Your task to perform on an android device: turn off location history Image 0: 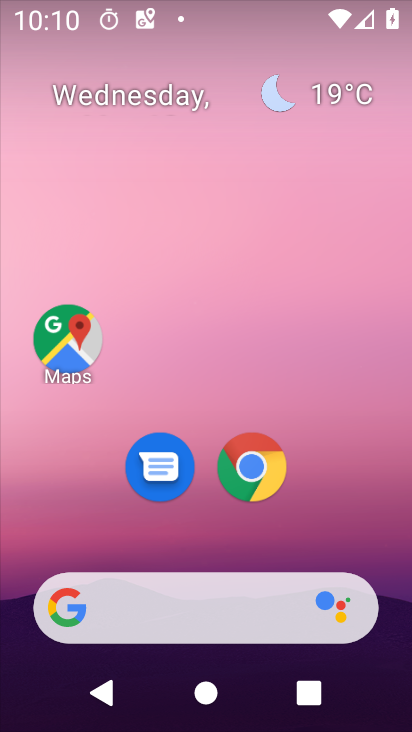
Step 0: drag from (327, 534) to (245, 21)
Your task to perform on an android device: turn off location history Image 1: 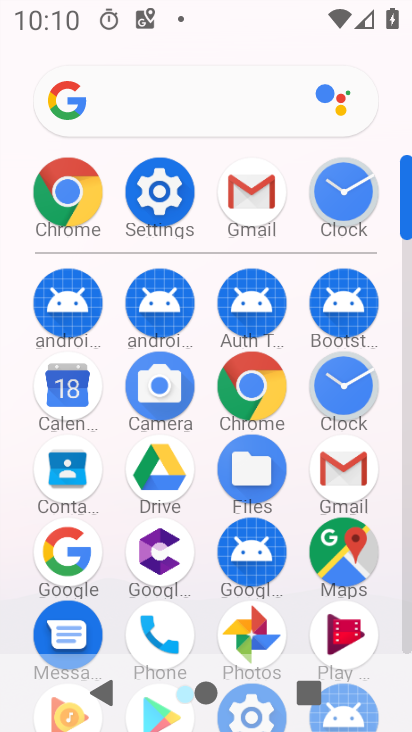
Step 1: click (165, 205)
Your task to perform on an android device: turn off location history Image 2: 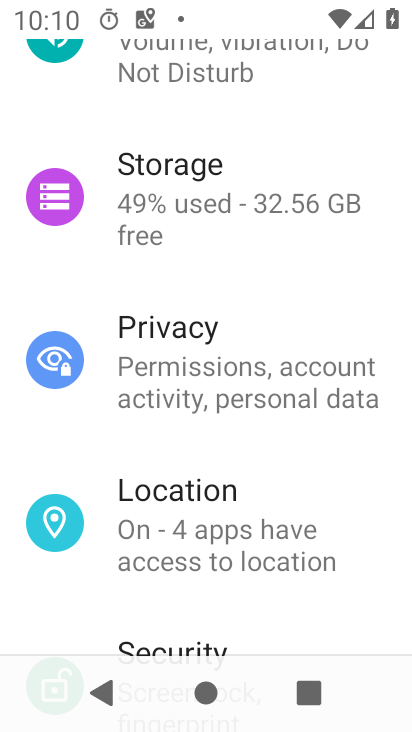
Step 2: drag from (281, 521) to (217, 137)
Your task to perform on an android device: turn off location history Image 3: 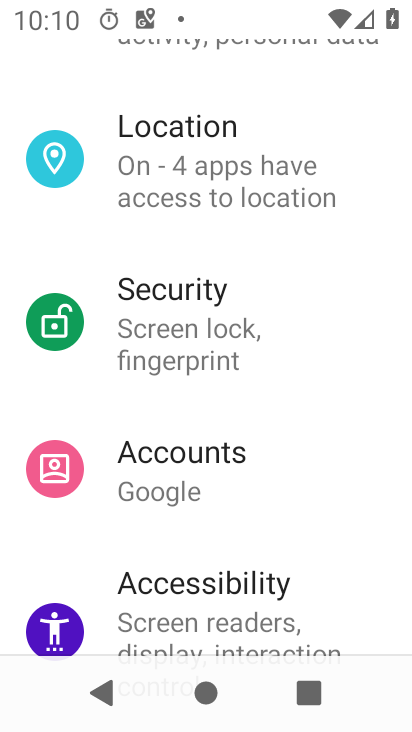
Step 3: click (235, 181)
Your task to perform on an android device: turn off location history Image 4: 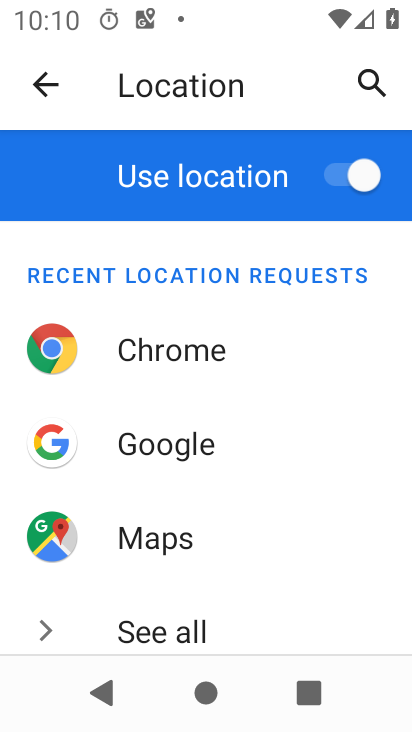
Step 4: drag from (308, 538) to (243, 176)
Your task to perform on an android device: turn off location history Image 5: 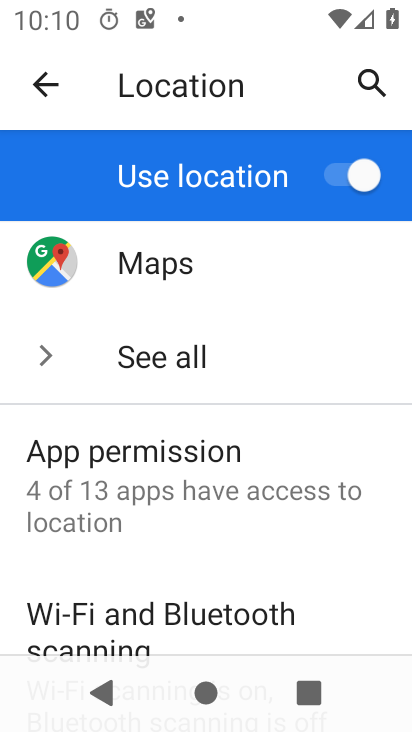
Step 5: drag from (282, 581) to (234, 234)
Your task to perform on an android device: turn off location history Image 6: 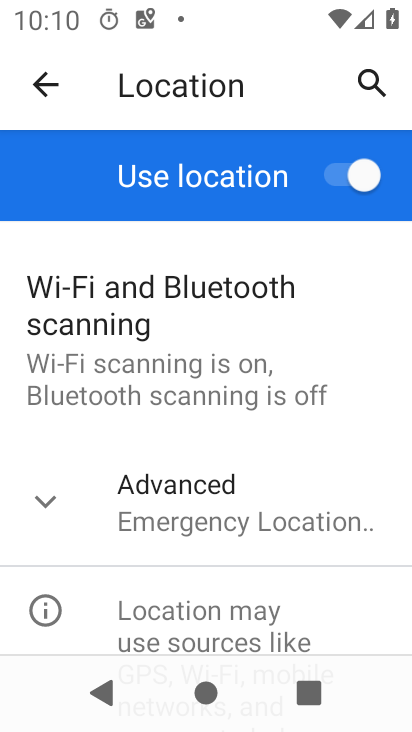
Step 6: click (241, 495)
Your task to perform on an android device: turn off location history Image 7: 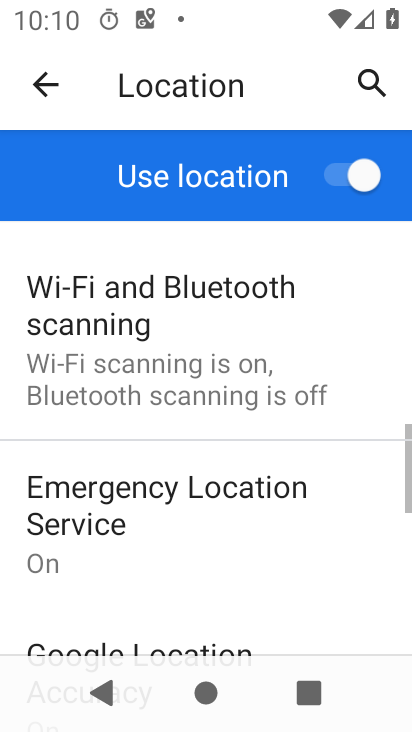
Step 7: drag from (222, 587) to (200, 208)
Your task to perform on an android device: turn off location history Image 8: 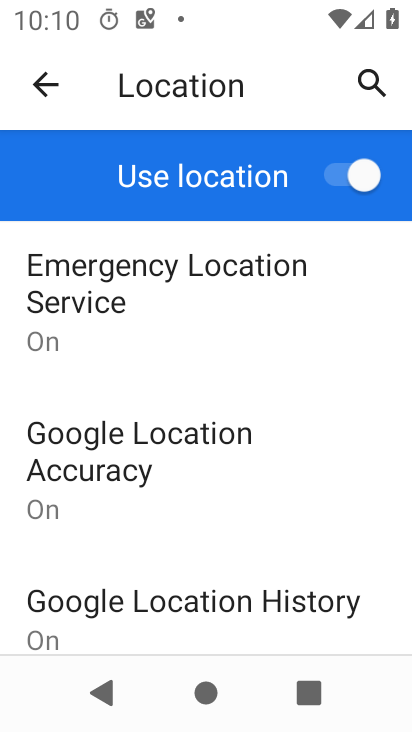
Step 8: click (270, 604)
Your task to perform on an android device: turn off location history Image 9: 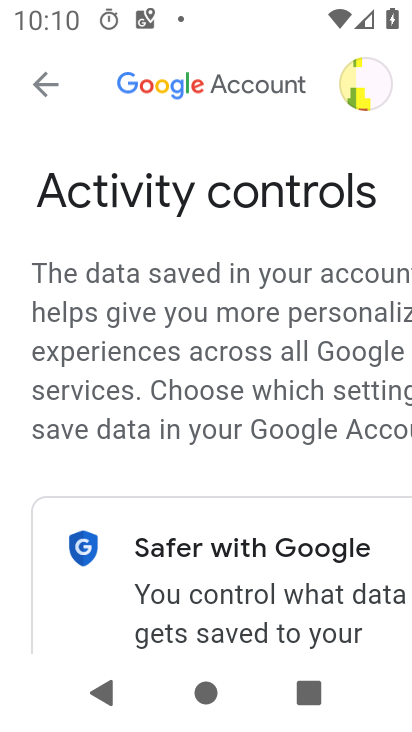
Step 9: drag from (258, 598) to (175, 185)
Your task to perform on an android device: turn off location history Image 10: 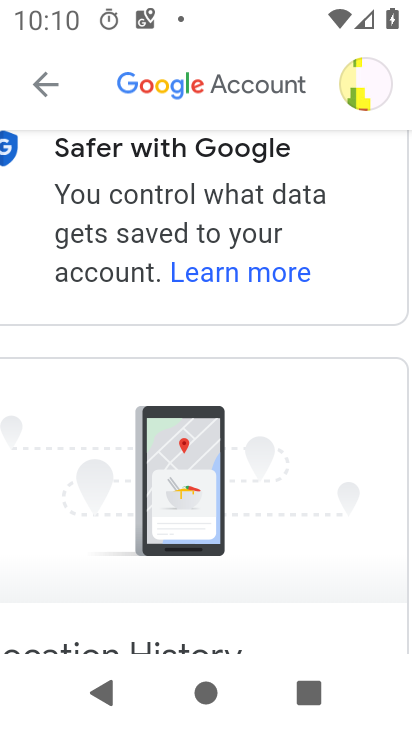
Step 10: drag from (251, 546) to (244, 187)
Your task to perform on an android device: turn off location history Image 11: 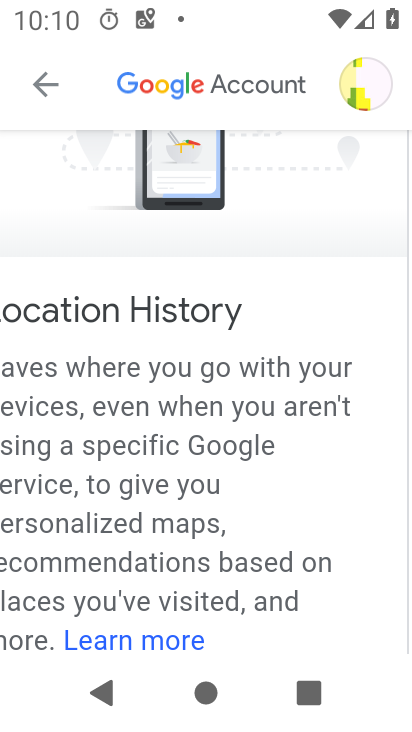
Step 11: drag from (272, 590) to (259, 224)
Your task to perform on an android device: turn off location history Image 12: 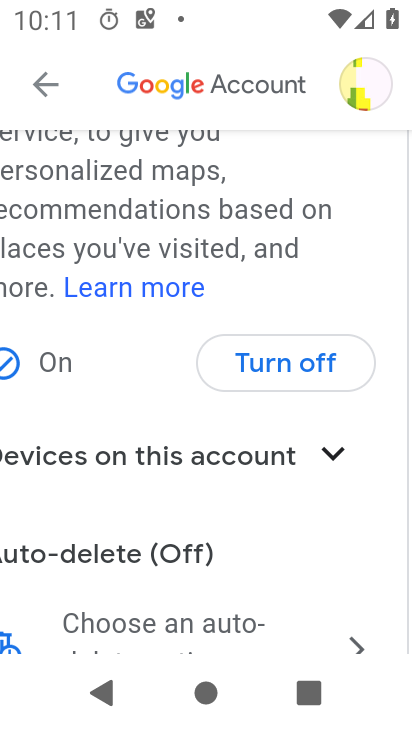
Step 12: click (304, 365)
Your task to perform on an android device: turn off location history Image 13: 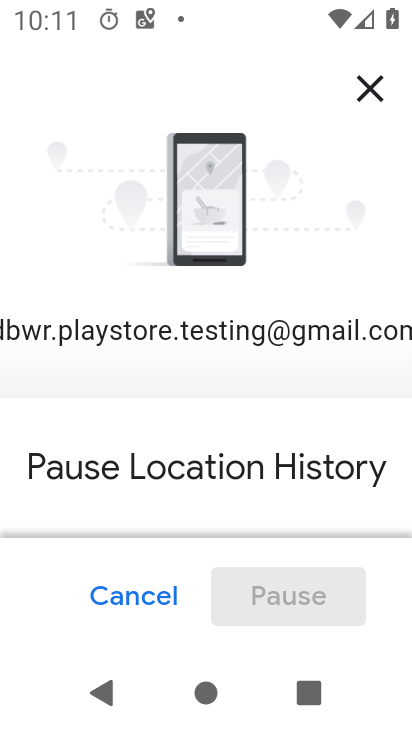
Step 13: drag from (291, 494) to (220, 15)
Your task to perform on an android device: turn off location history Image 14: 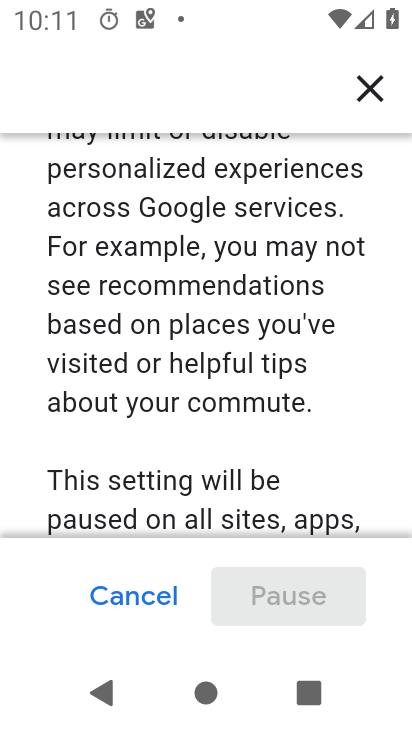
Step 14: drag from (227, 450) to (228, 49)
Your task to perform on an android device: turn off location history Image 15: 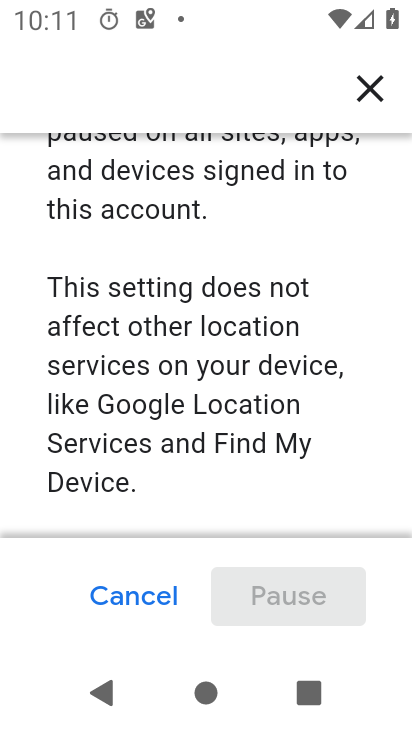
Step 15: drag from (198, 406) to (200, 101)
Your task to perform on an android device: turn off location history Image 16: 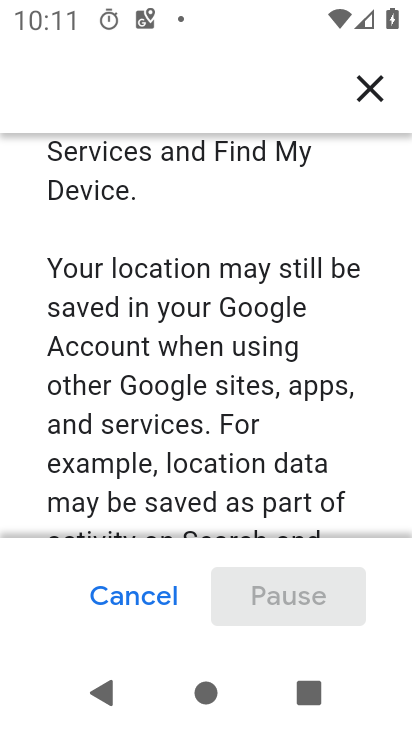
Step 16: drag from (208, 459) to (227, 96)
Your task to perform on an android device: turn off location history Image 17: 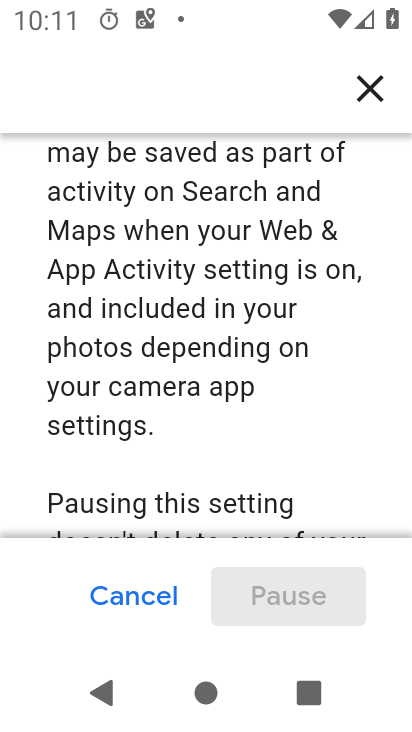
Step 17: drag from (208, 432) to (223, 133)
Your task to perform on an android device: turn off location history Image 18: 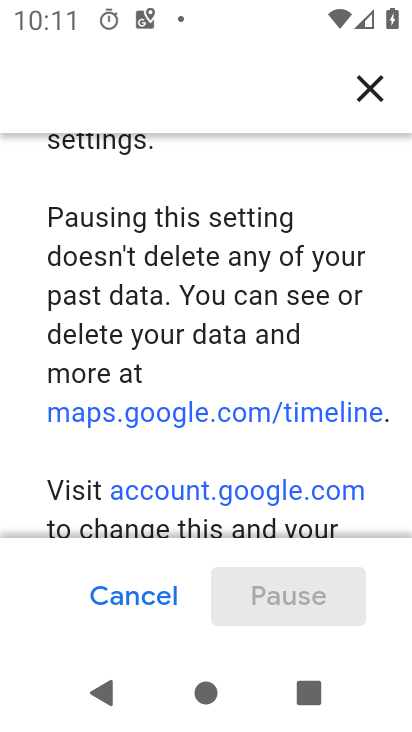
Step 18: drag from (231, 426) to (219, 138)
Your task to perform on an android device: turn off location history Image 19: 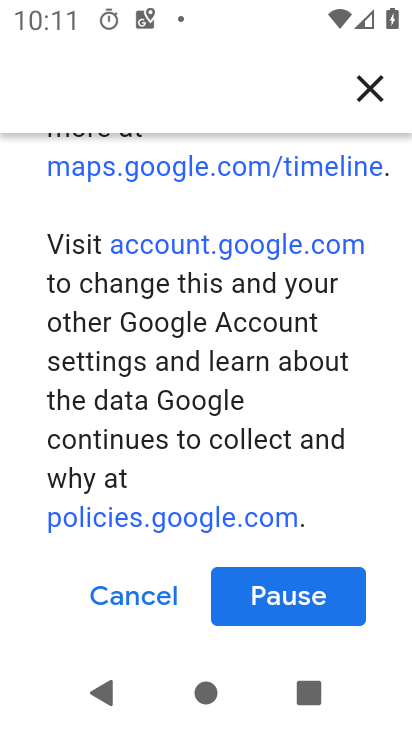
Step 19: drag from (212, 227) to (212, 193)
Your task to perform on an android device: turn off location history Image 20: 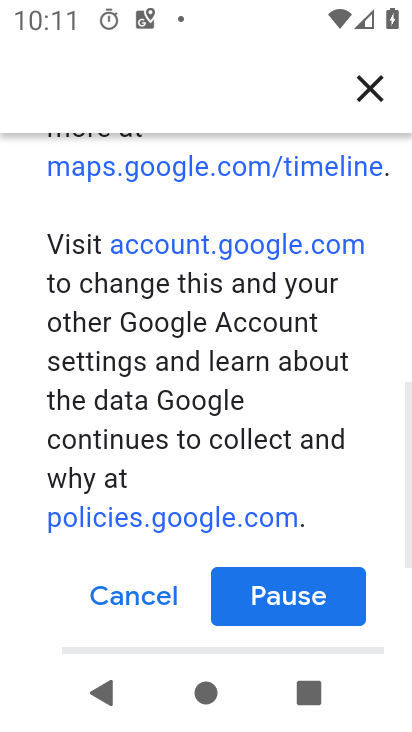
Step 20: click (291, 573)
Your task to perform on an android device: turn off location history Image 21: 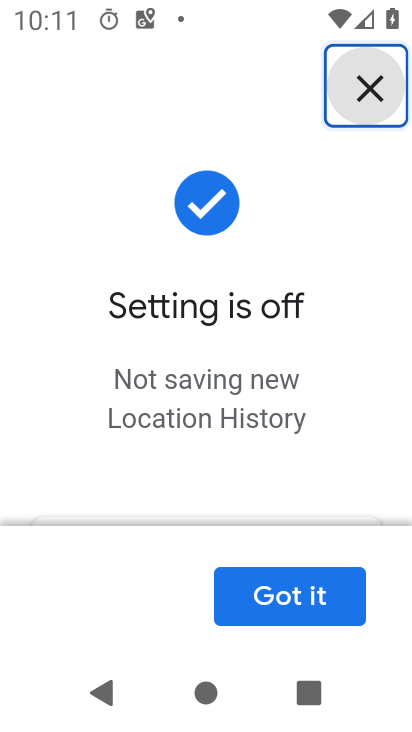
Step 21: click (324, 593)
Your task to perform on an android device: turn off location history Image 22: 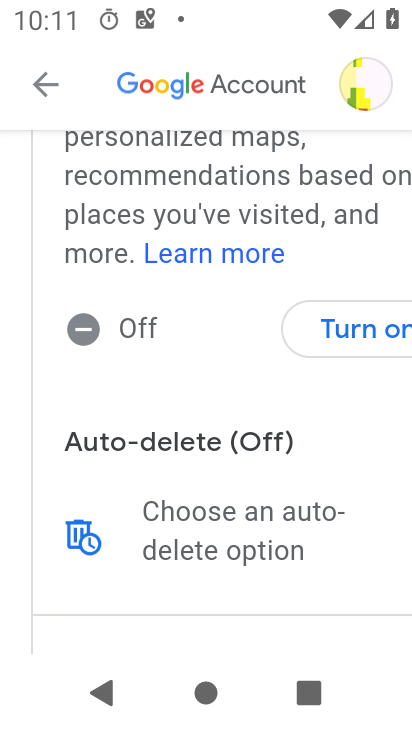
Step 22: task complete